Your task to perform on an android device: find photos in the google photos app Image 0: 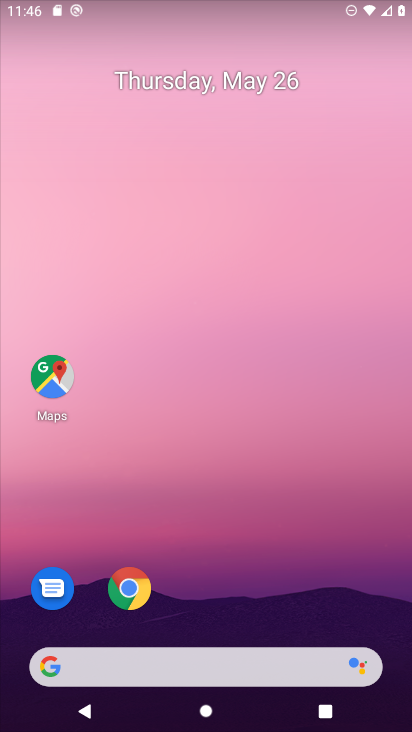
Step 0: drag from (402, 642) to (349, 95)
Your task to perform on an android device: find photos in the google photos app Image 1: 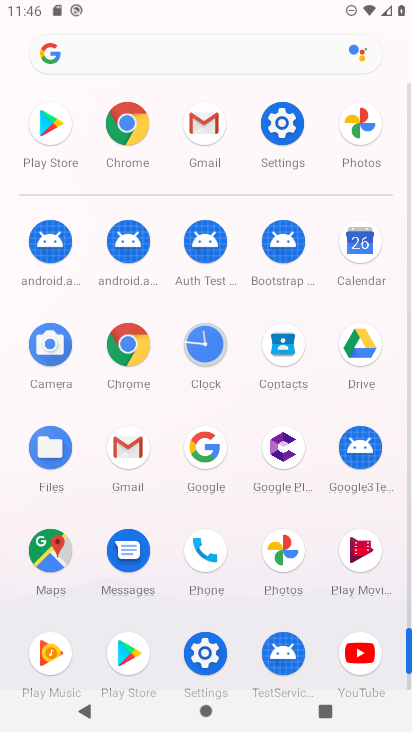
Step 1: click (283, 550)
Your task to perform on an android device: find photos in the google photos app Image 2: 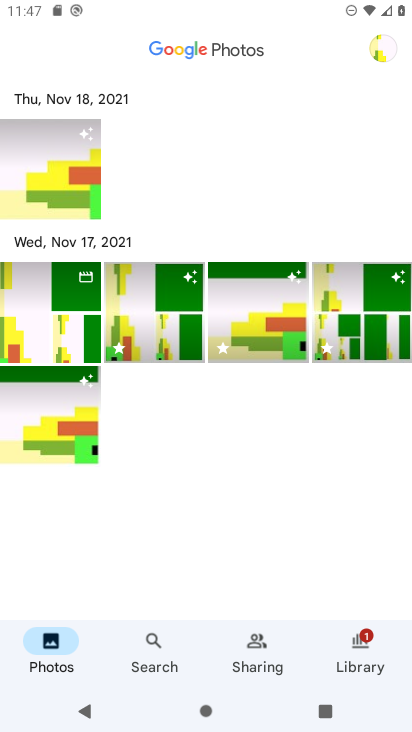
Step 2: task complete